Your task to perform on an android device: toggle pop-ups in chrome Image 0: 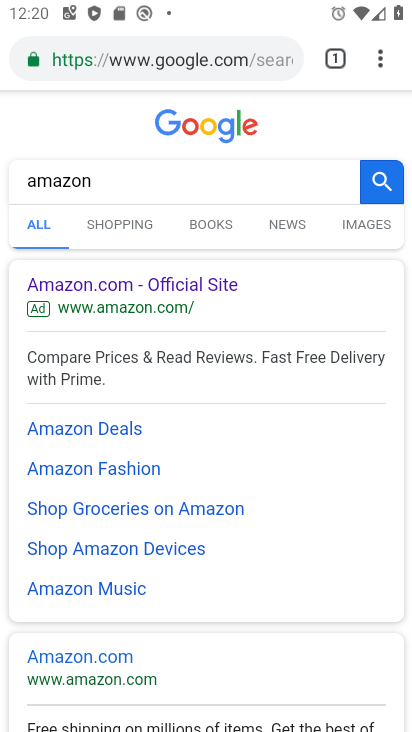
Step 0: press home button
Your task to perform on an android device: toggle pop-ups in chrome Image 1: 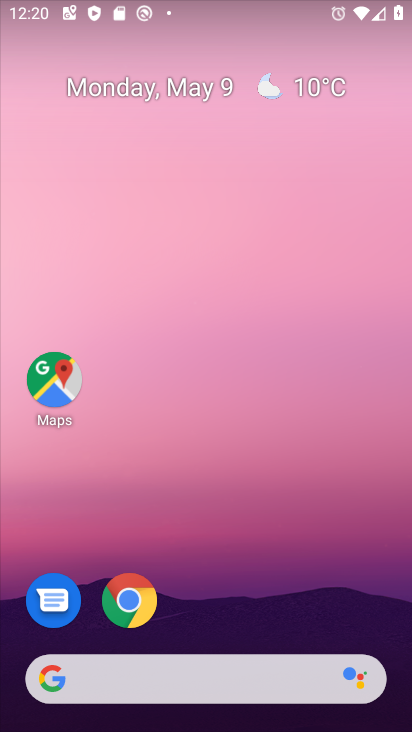
Step 1: click (130, 600)
Your task to perform on an android device: toggle pop-ups in chrome Image 2: 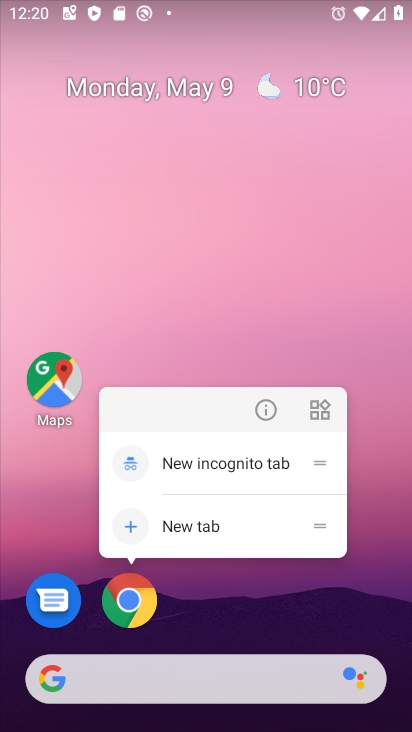
Step 2: click (132, 600)
Your task to perform on an android device: toggle pop-ups in chrome Image 3: 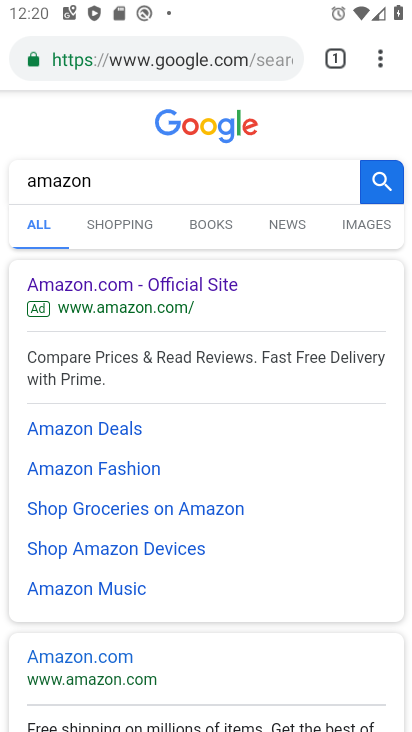
Step 3: click (378, 60)
Your task to perform on an android device: toggle pop-ups in chrome Image 4: 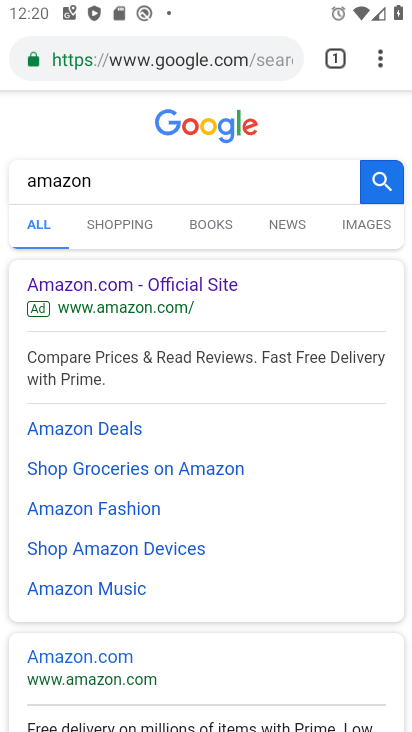
Step 4: click (379, 60)
Your task to perform on an android device: toggle pop-ups in chrome Image 5: 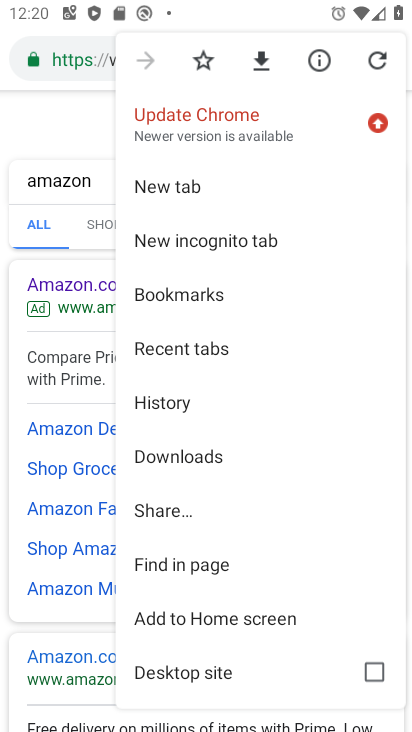
Step 5: drag from (206, 660) to (287, 309)
Your task to perform on an android device: toggle pop-ups in chrome Image 6: 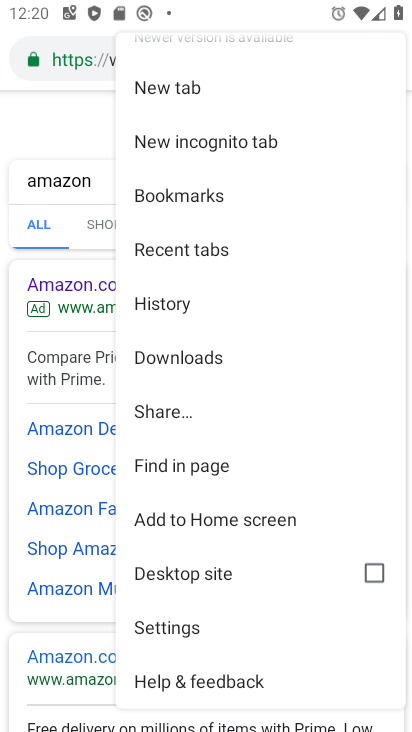
Step 6: click (162, 622)
Your task to perform on an android device: toggle pop-ups in chrome Image 7: 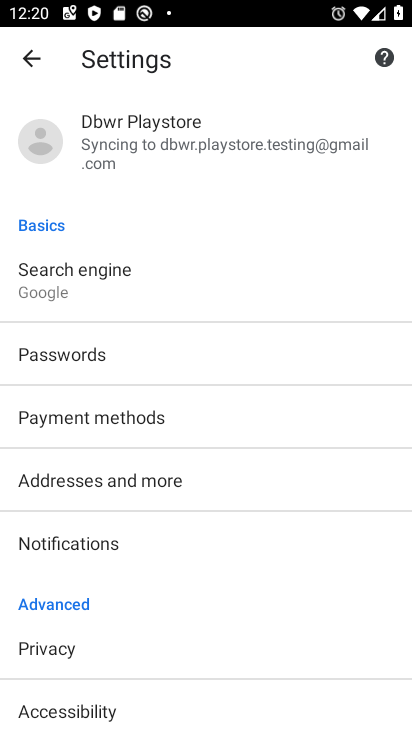
Step 7: drag from (196, 628) to (330, 160)
Your task to perform on an android device: toggle pop-ups in chrome Image 8: 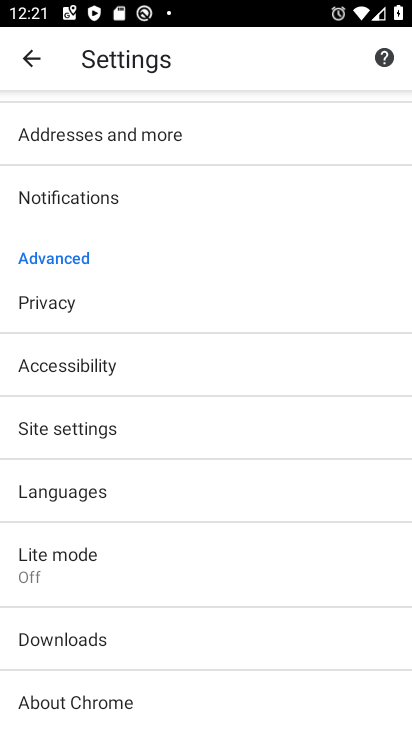
Step 8: click (94, 431)
Your task to perform on an android device: toggle pop-ups in chrome Image 9: 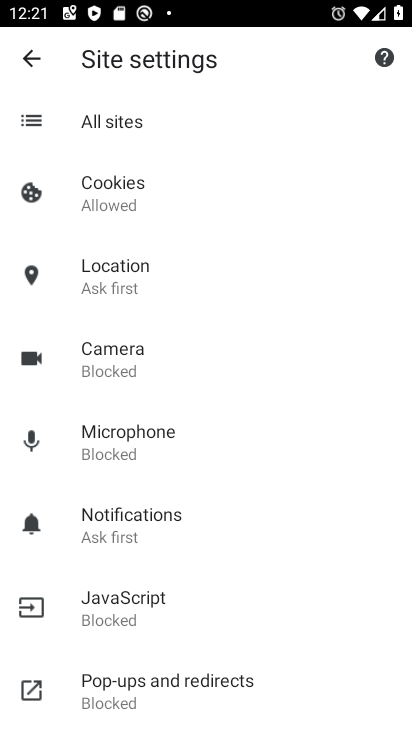
Step 9: click (169, 689)
Your task to perform on an android device: toggle pop-ups in chrome Image 10: 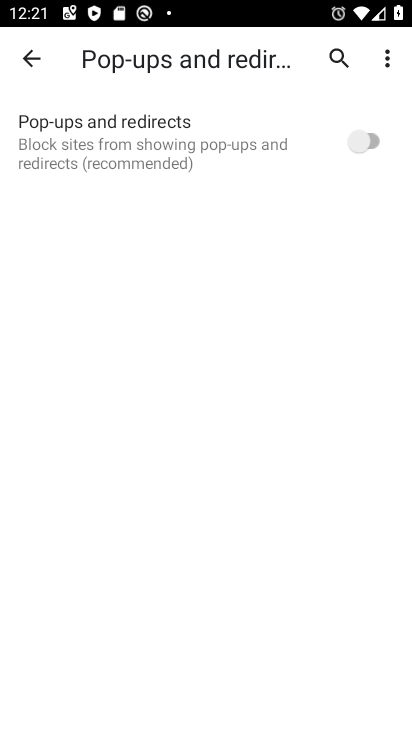
Step 10: click (353, 134)
Your task to perform on an android device: toggle pop-ups in chrome Image 11: 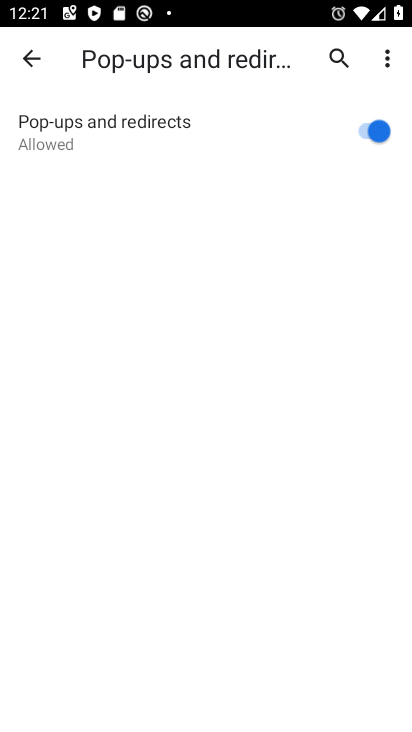
Step 11: task complete